Your task to perform on an android device: Open network settings Image 0: 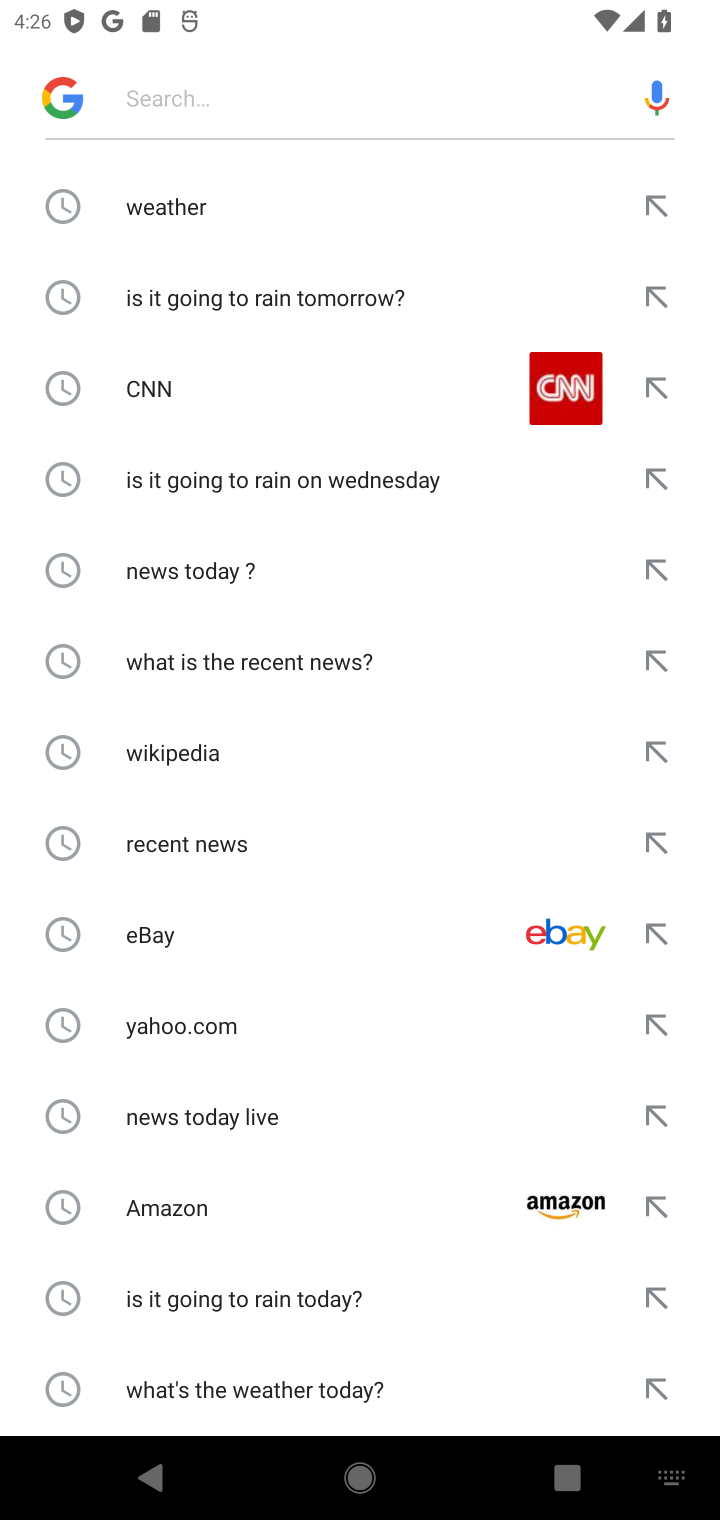
Step 0: press home button
Your task to perform on an android device: Open network settings Image 1: 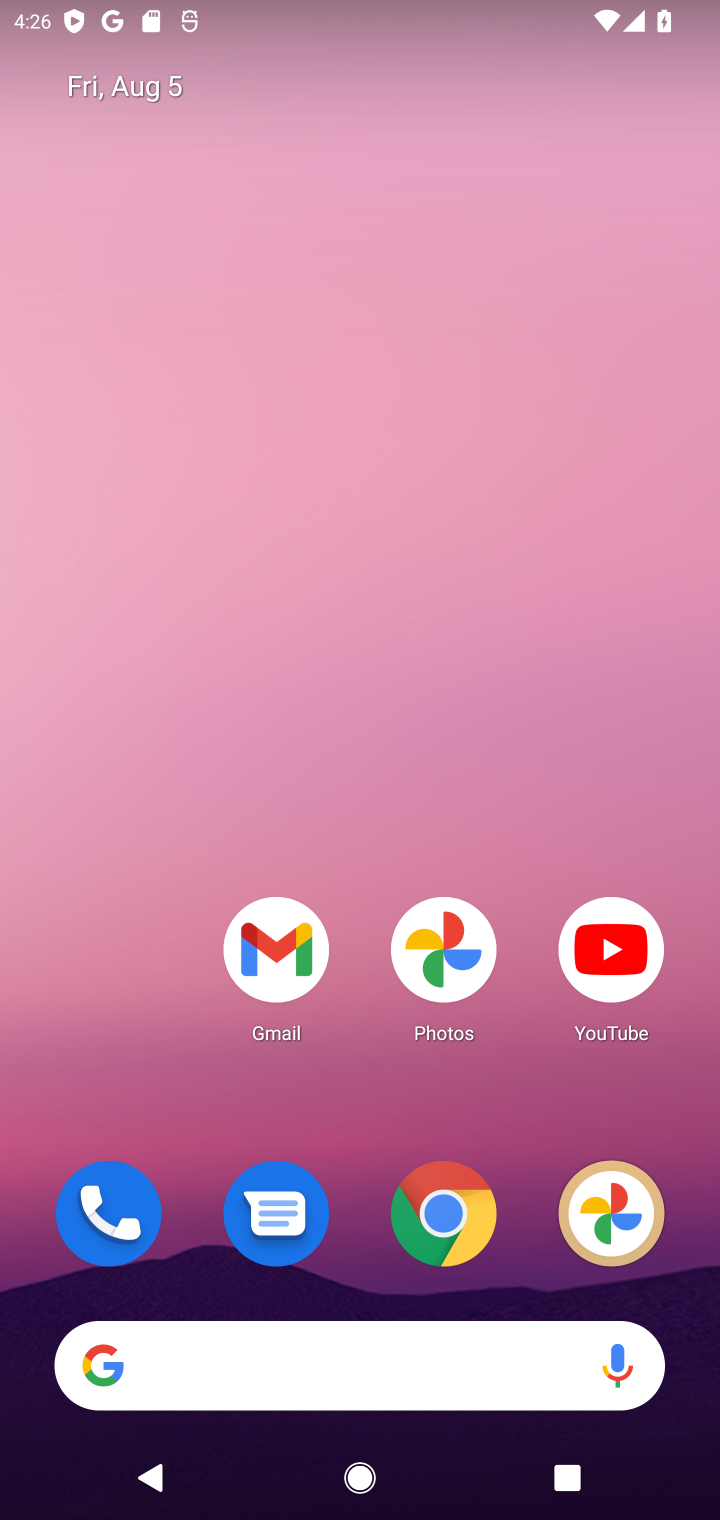
Step 1: drag from (326, 1076) to (438, 291)
Your task to perform on an android device: Open network settings Image 2: 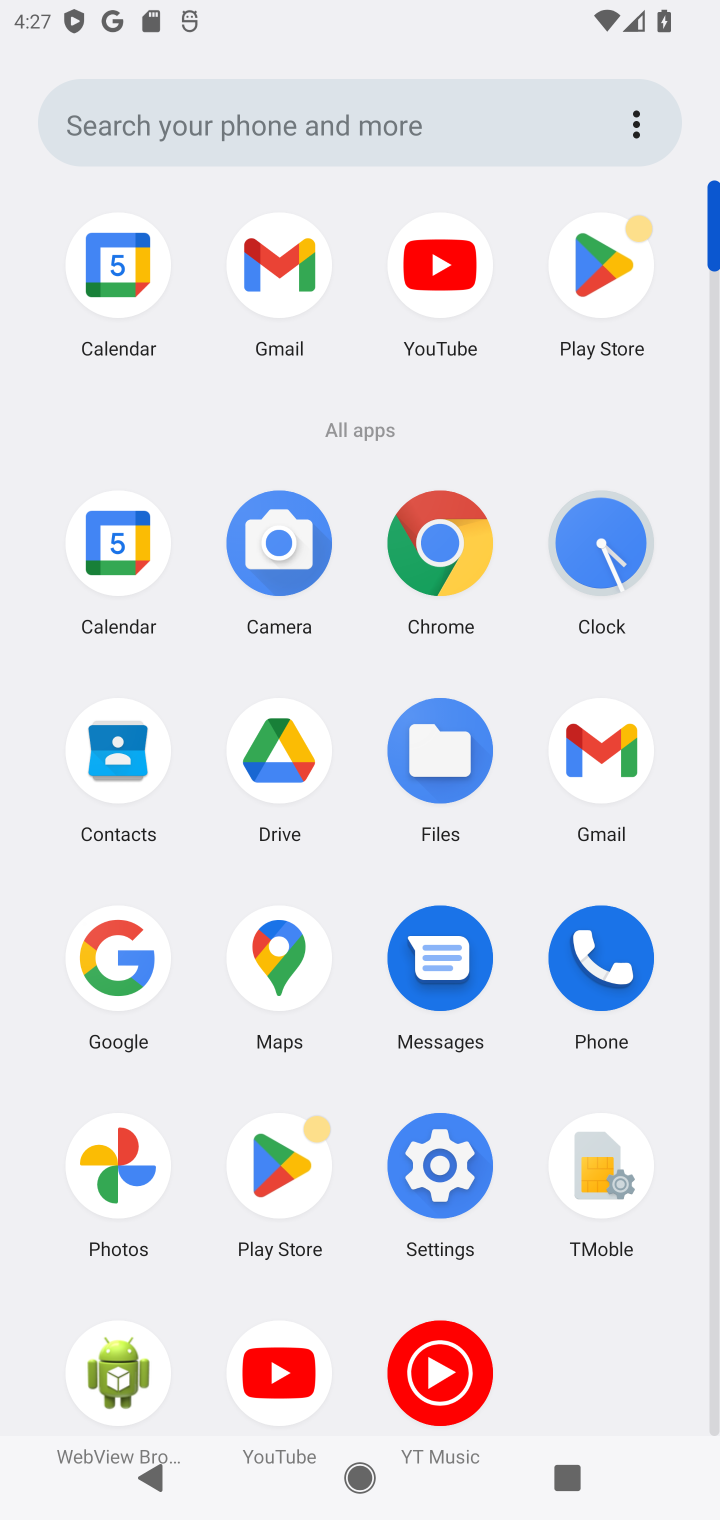
Step 2: click (403, 1176)
Your task to perform on an android device: Open network settings Image 3: 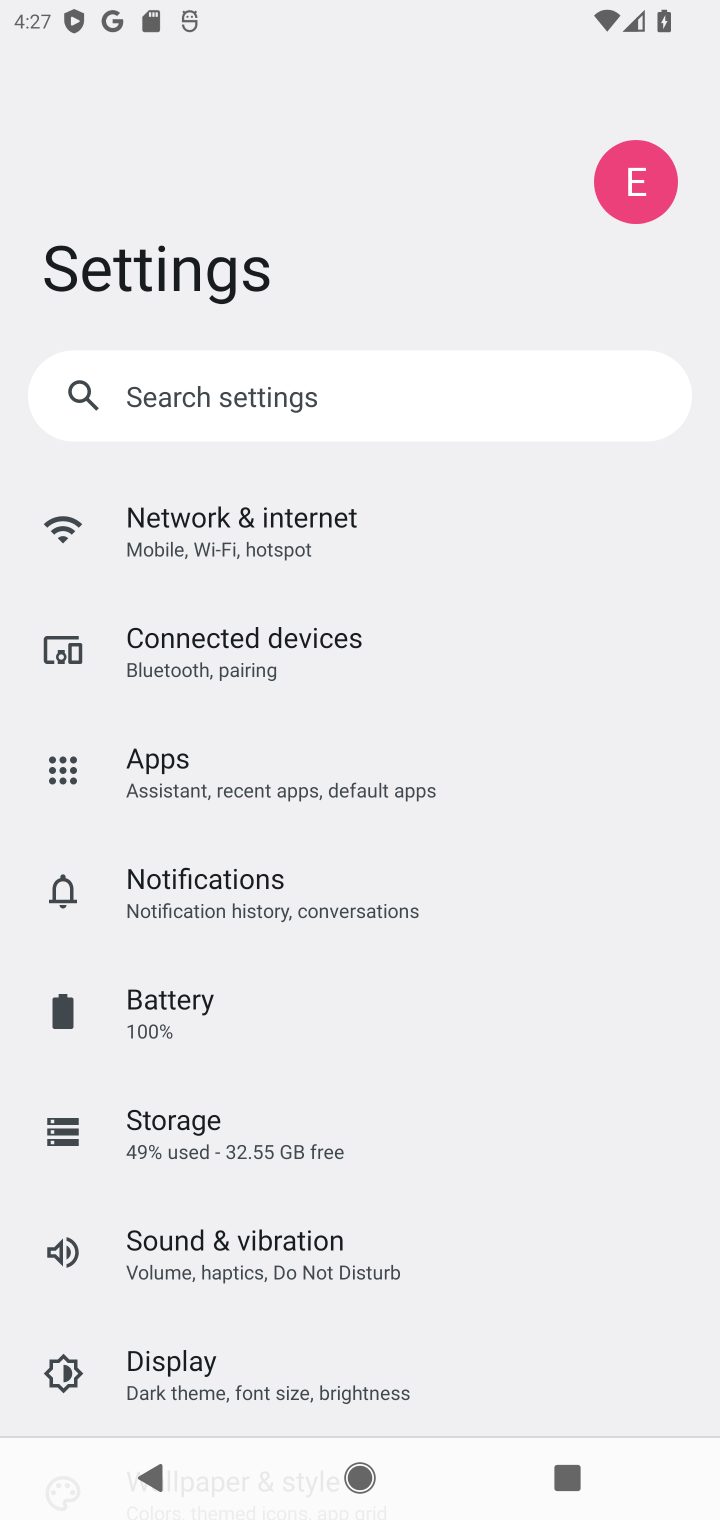
Step 3: click (368, 531)
Your task to perform on an android device: Open network settings Image 4: 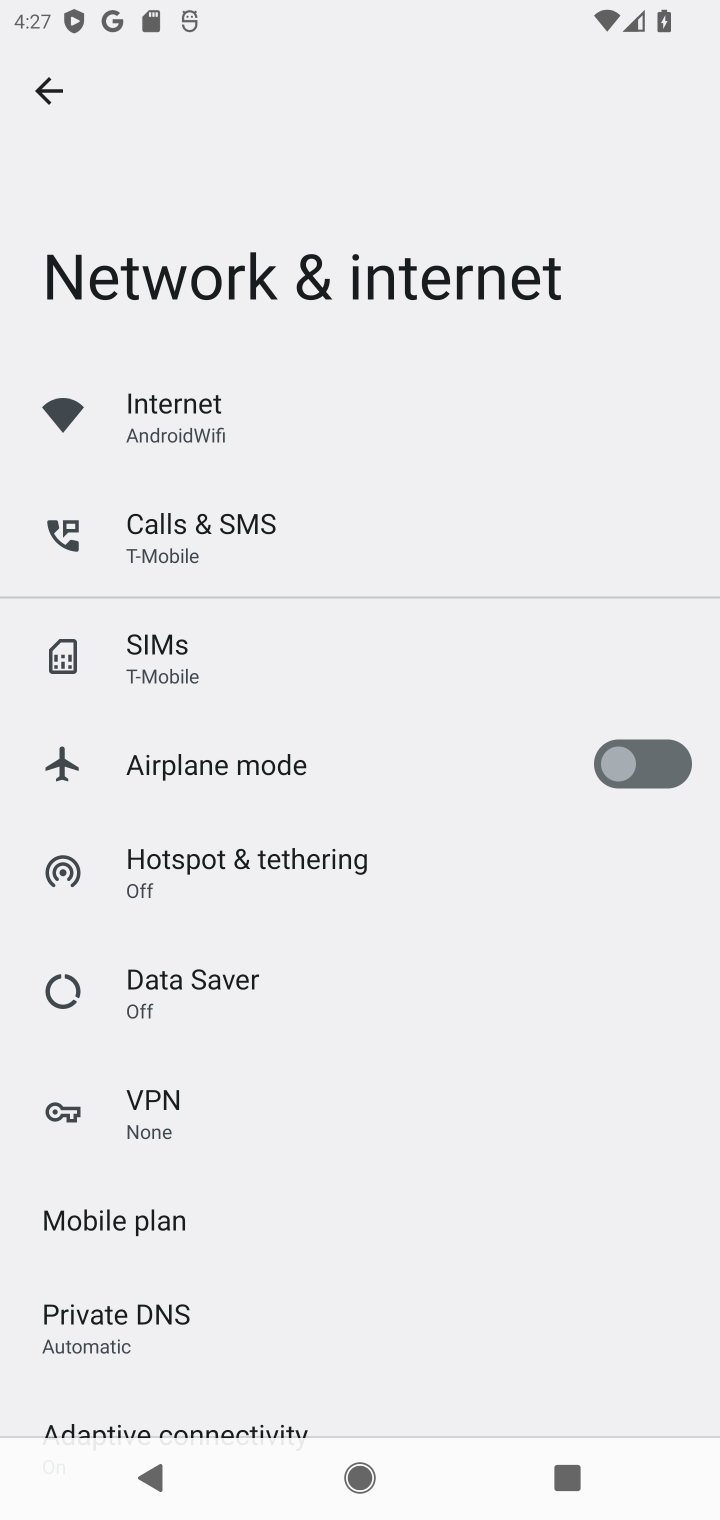
Step 4: task complete